Your task to perform on an android device: turn on improve location accuracy Image 0: 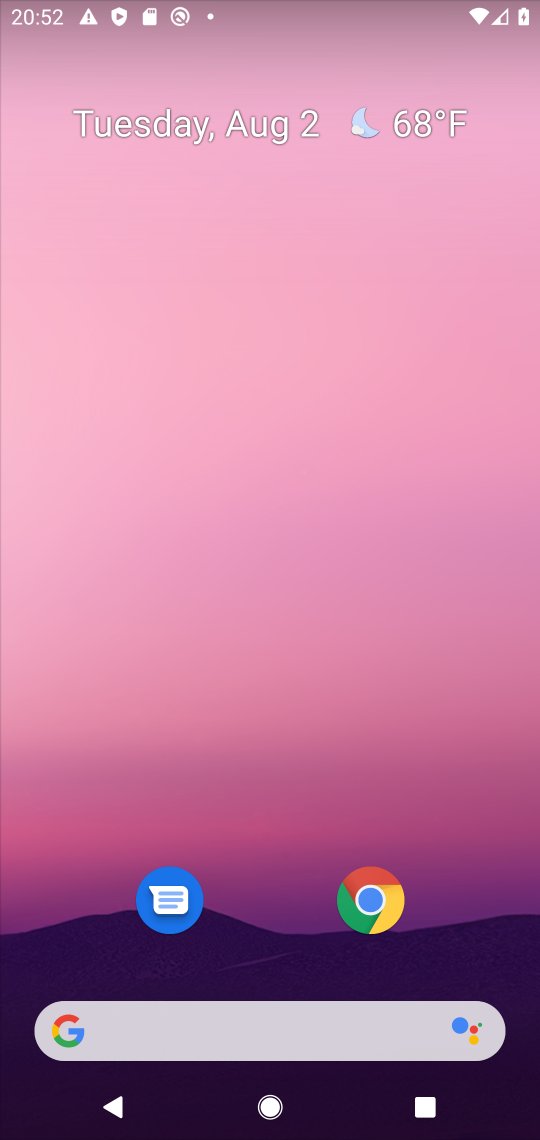
Step 0: drag from (275, 871) to (261, 6)
Your task to perform on an android device: turn on improve location accuracy Image 1: 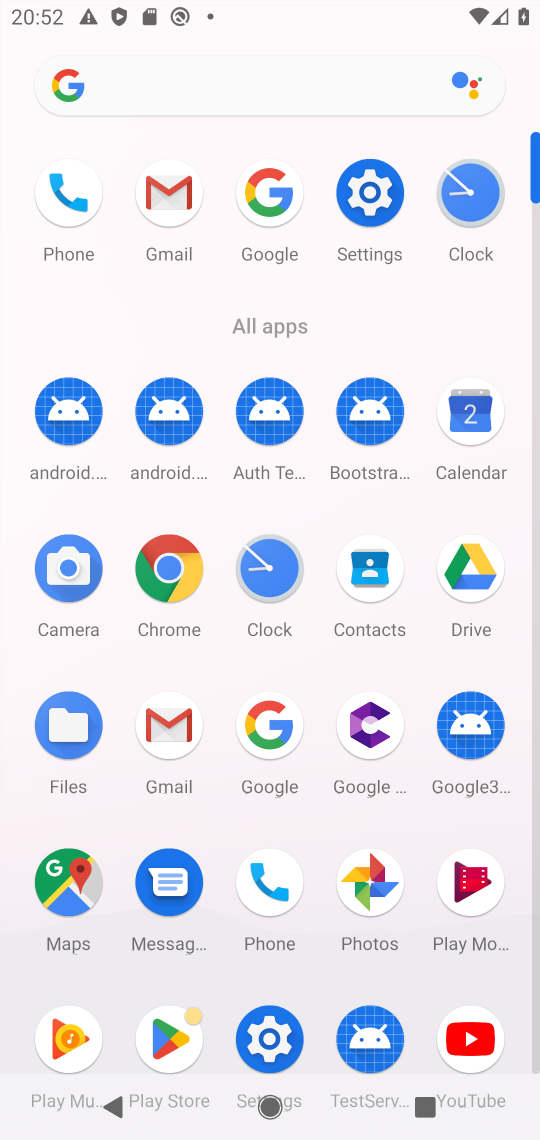
Step 1: click (372, 197)
Your task to perform on an android device: turn on improve location accuracy Image 2: 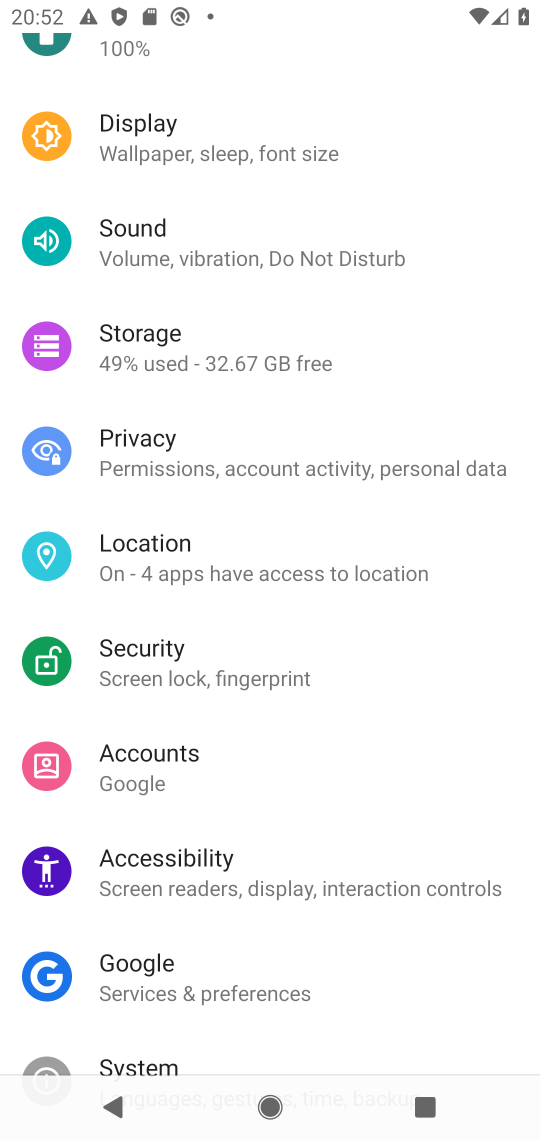
Step 2: click (304, 559)
Your task to perform on an android device: turn on improve location accuracy Image 3: 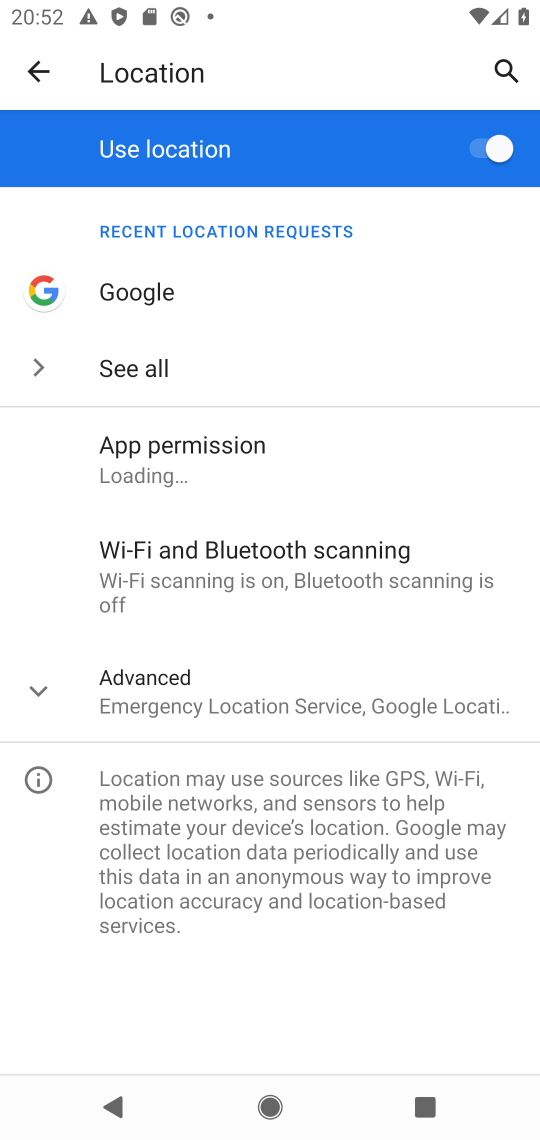
Step 3: click (37, 682)
Your task to perform on an android device: turn on improve location accuracy Image 4: 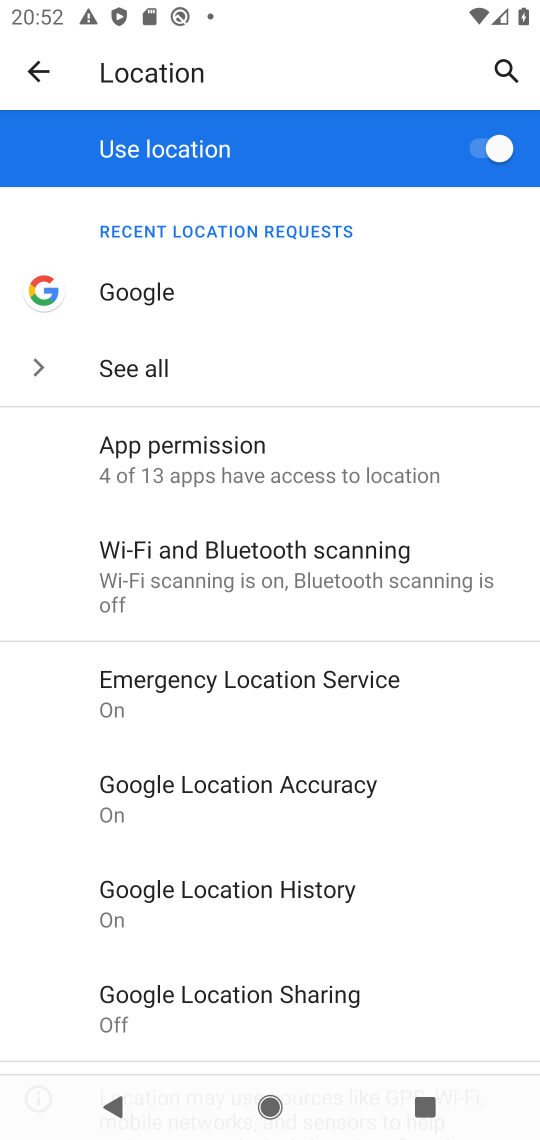
Step 4: click (219, 781)
Your task to perform on an android device: turn on improve location accuracy Image 5: 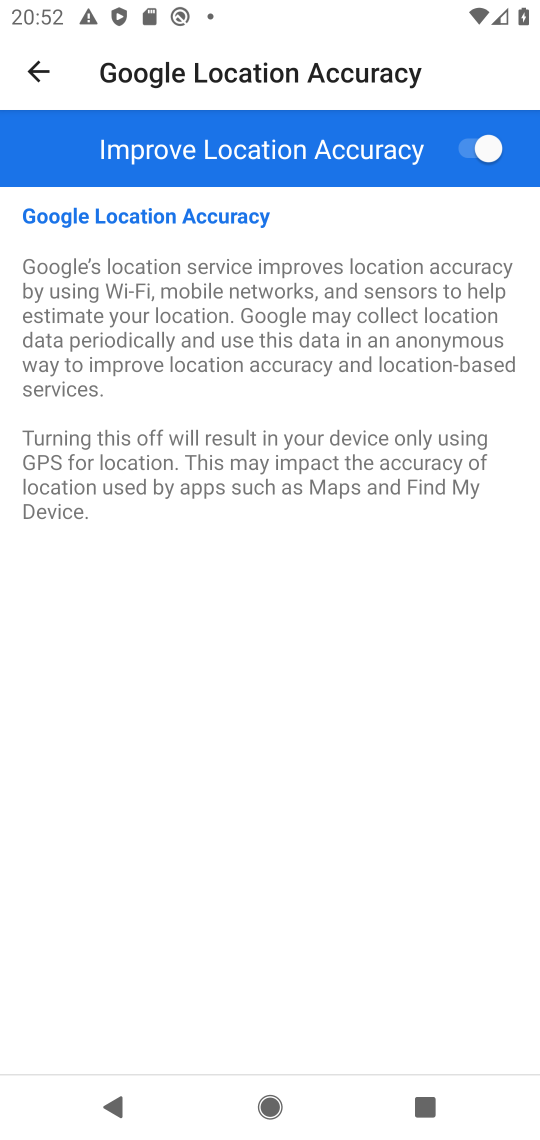
Step 5: task complete